Your task to perform on an android device: set the stopwatch Image 0: 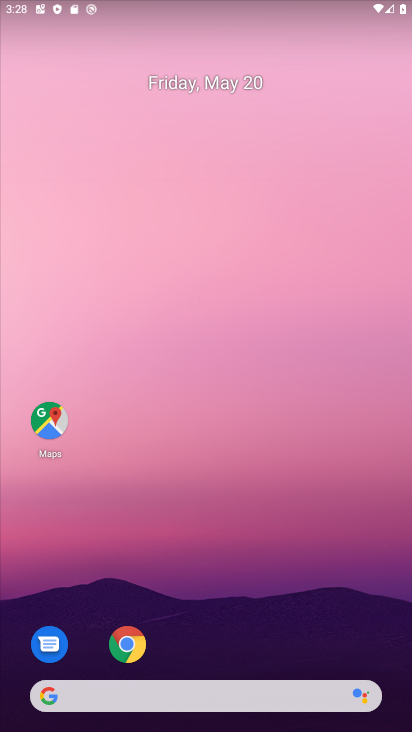
Step 0: drag from (312, 634) to (264, 168)
Your task to perform on an android device: set the stopwatch Image 1: 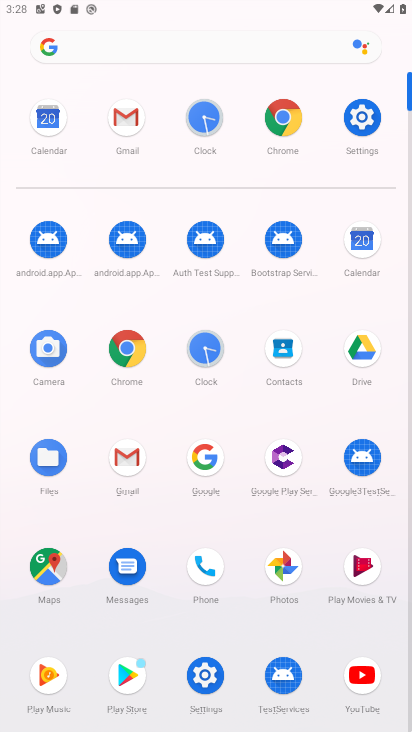
Step 1: click (197, 113)
Your task to perform on an android device: set the stopwatch Image 2: 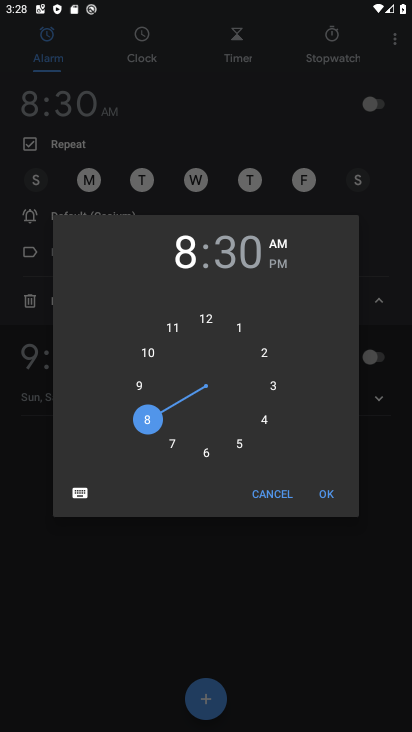
Step 2: click (310, 495)
Your task to perform on an android device: set the stopwatch Image 3: 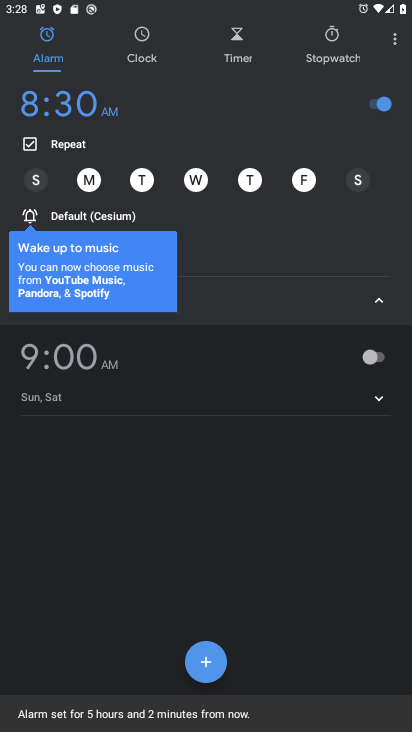
Step 3: click (342, 51)
Your task to perform on an android device: set the stopwatch Image 4: 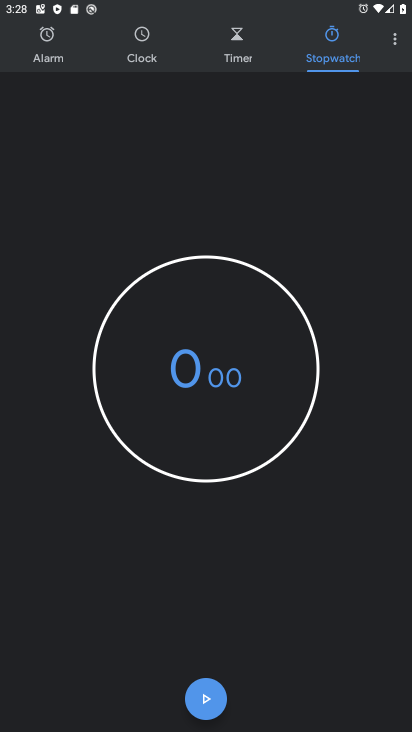
Step 4: task complete